Your task to perform on an android device: turn off improve location accuracy Image 0: 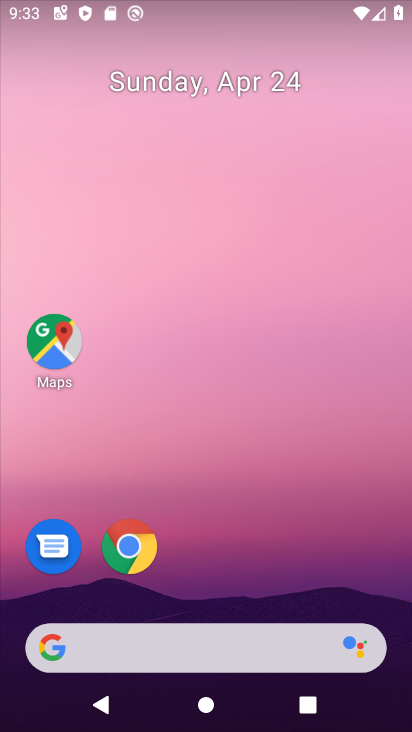
Step 0: drag from (302, 601) to (369, 99)
Your task to perform on an android device: turn off improve location accuracy Image 1: 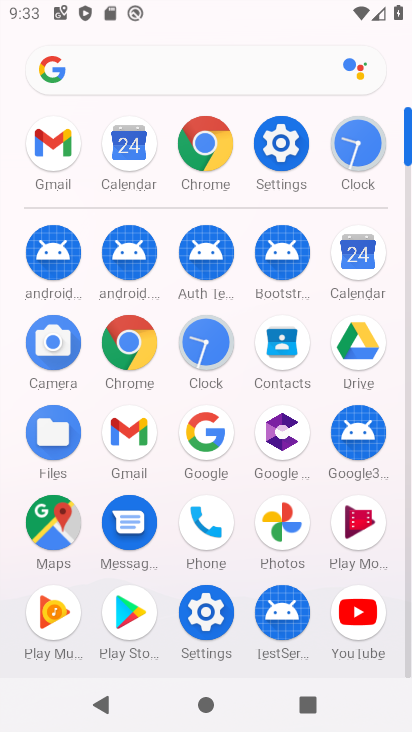
Step 1: click (208, 600)
Your task to perform on an android device: turn off improve location accuracy Image 2: 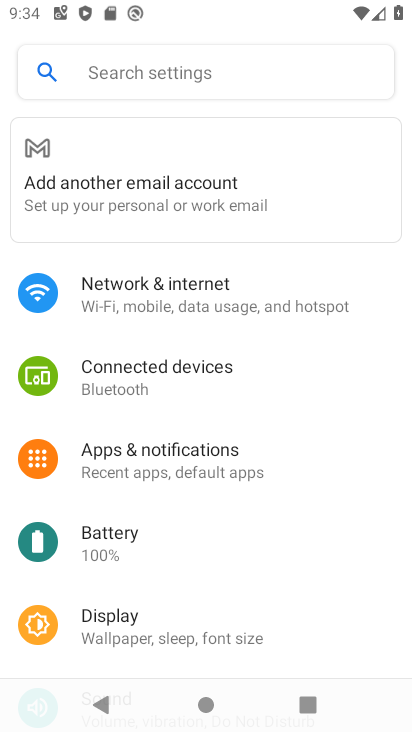
Step 2: drag from (236, 569) to (235, 240)
Your task to perform on an android device: turn off improve location accuracy Image 3: 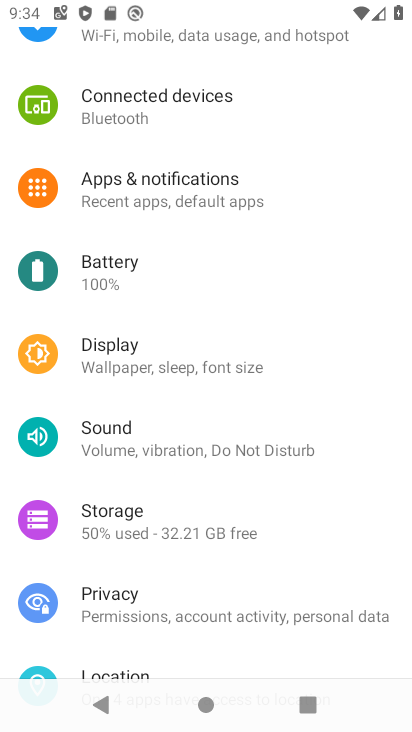
Step 3: click (149, 663)
Your task to perform on an android device: turn off improve location accuracy Image 4: 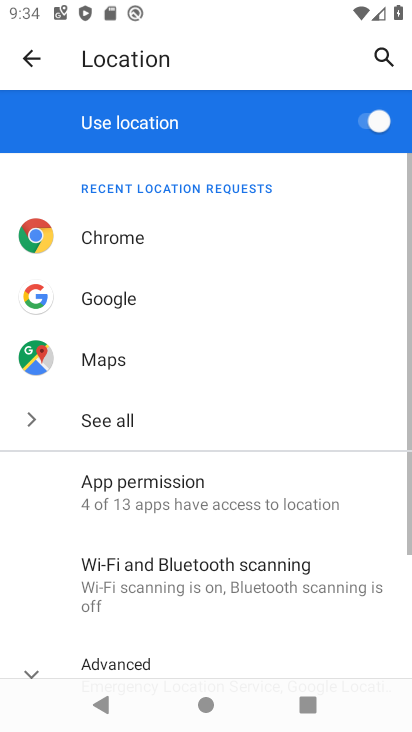
Step 4: drag from (240, 554) to (223, 115)
Your task to perform on an android device: turn off improve location accuracy Image 5: 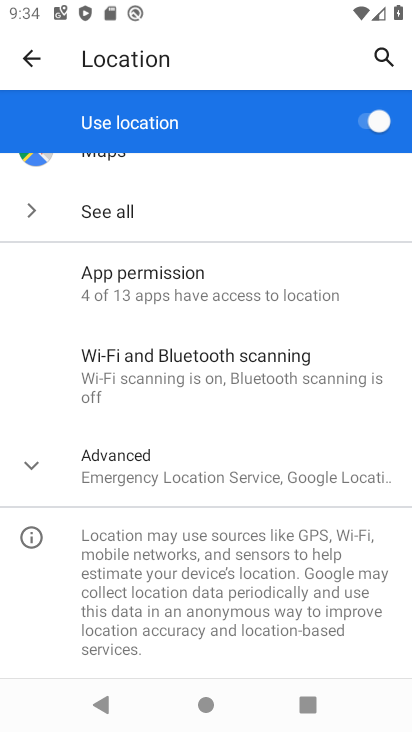
Step 5: click (198, 464)
Your task to perform on an android device: turn off improve location accuracy Image 6: 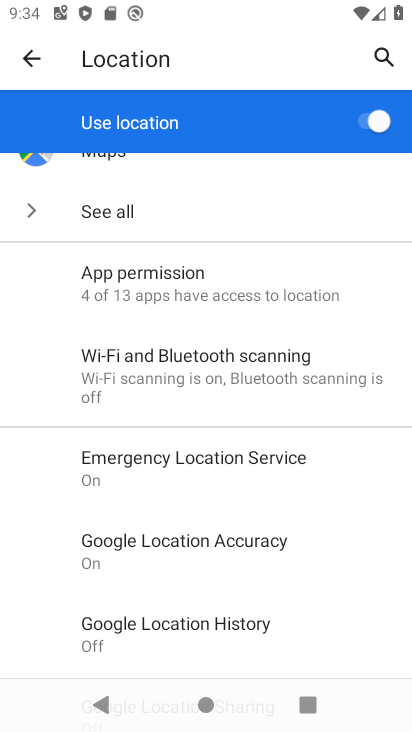
Step 6: click (218, 561)
Your task to perform on an android device: turn off improve location accuracy Image 7: 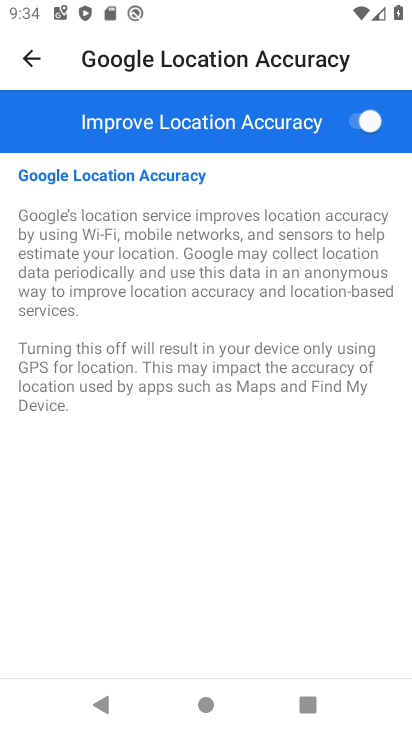
Step 7: click (360, 124)
Your task to perform on an android device: turn off improve location accuracy Image 8: 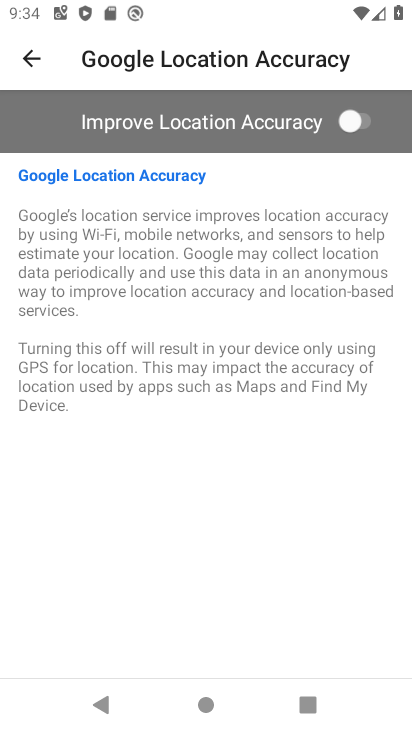
Step 8: task complete